Your task to perform on an android device: Check the weather Image 0: 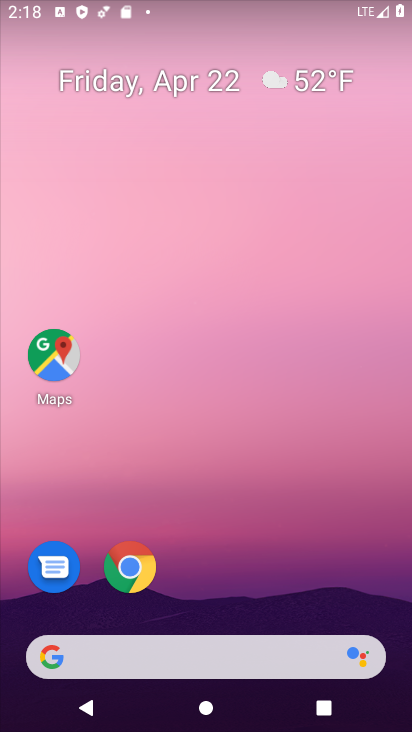
Step 0: click (304, 77)
Your task to perform on an android device: Check the weather Image 1: 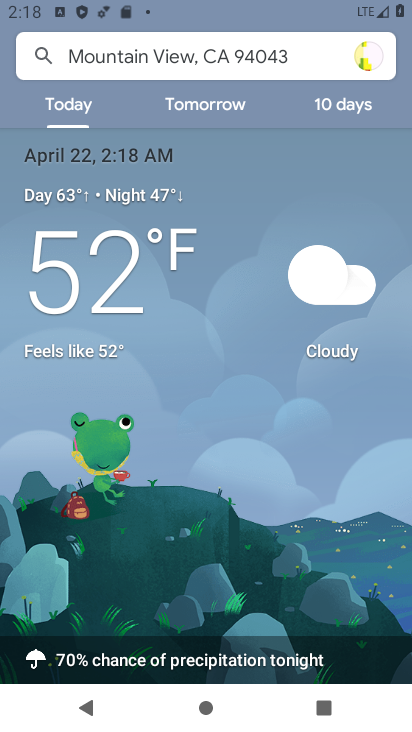
Step 1: task complete